Your task to perform on an android device: install app "Messages" Image 0: 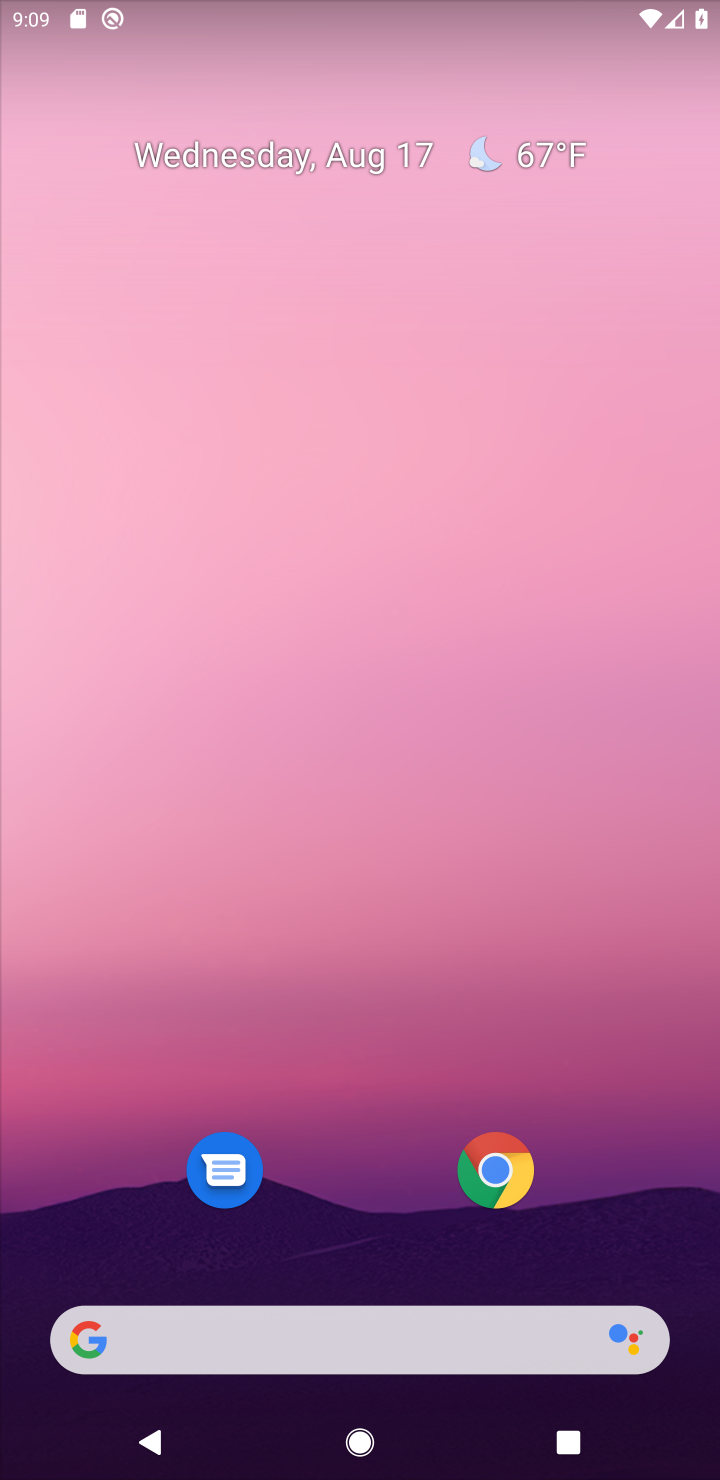
Step 0: click (220, 1196)
Your task to perform on an android device: install app "Messages" Image 1: 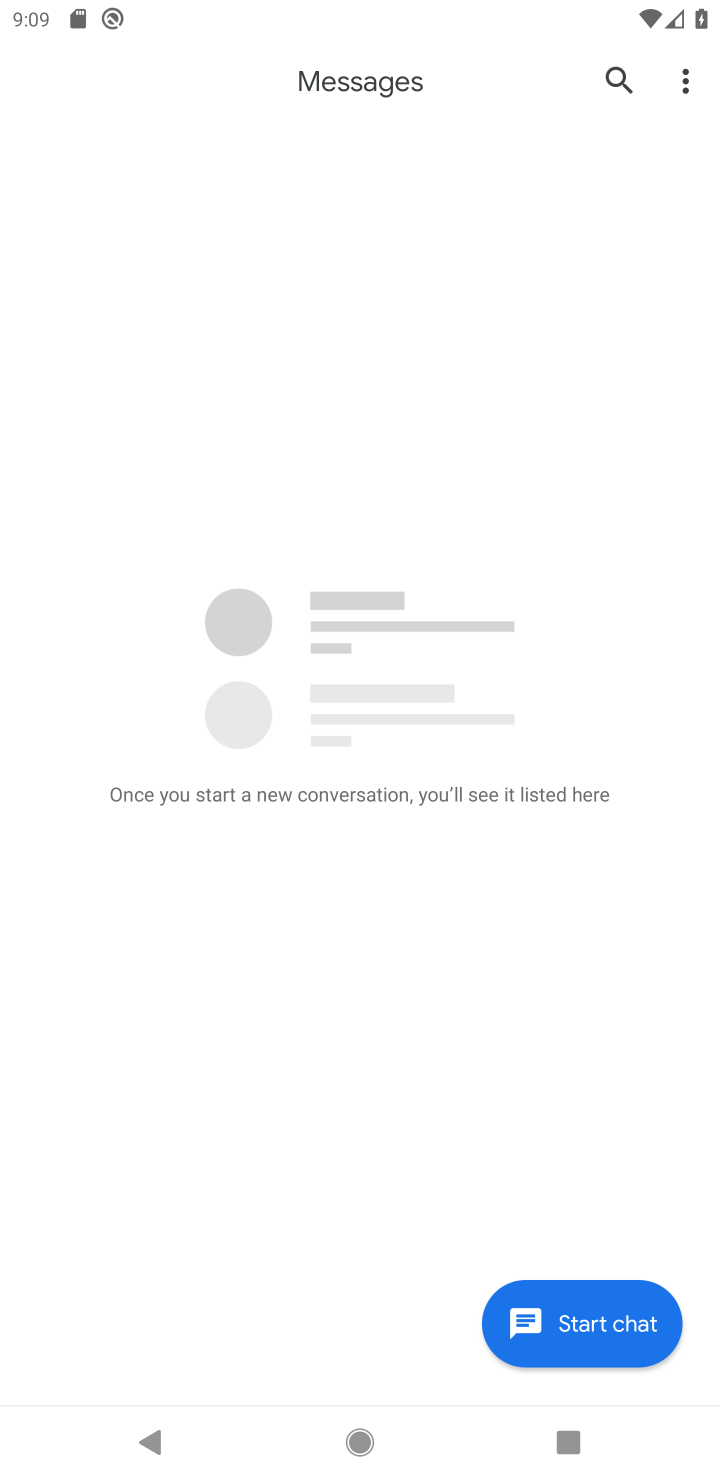
Step 1: click (532, 746)
Your task to perform on an android device: install app "Messages" Image 2: 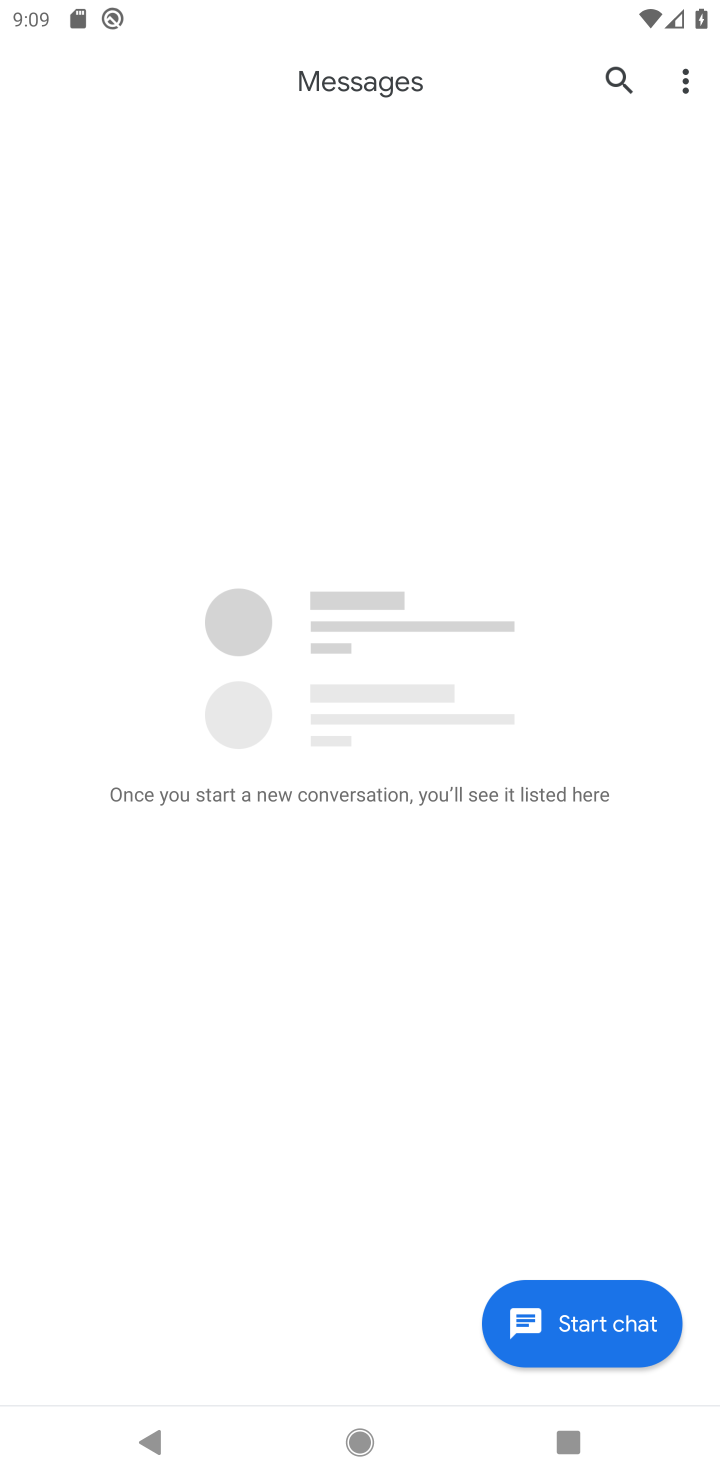
Step 2: task complete